Your task to perform on an android device: Go to eBay Image 0: 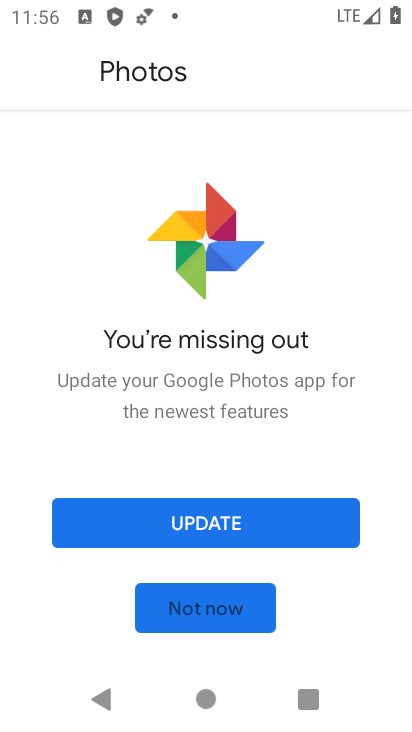
Step 0: press home button
Your task to perform on an android device: Go to eBay Image 1: 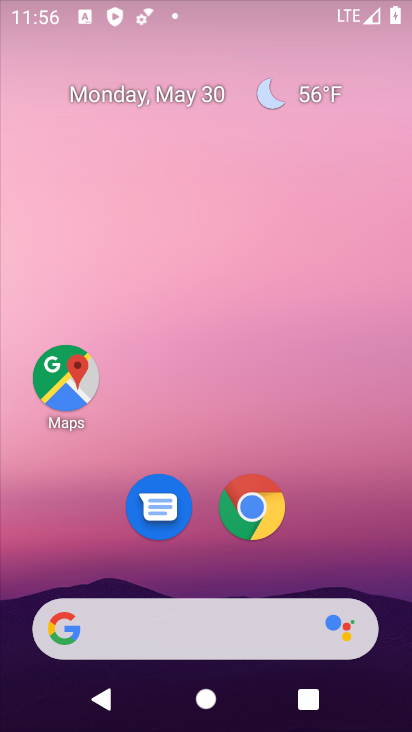
Step 1: drag from (389, 632) to (322, 153)
Your task to perform on an android device: Go to eBay Image 2: 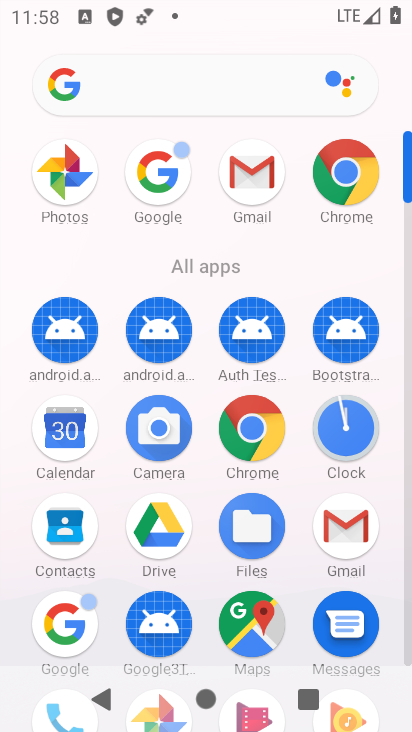
Step 2: click (60, 618)
Your task to perform on an android device: Go to eBay Image 3: 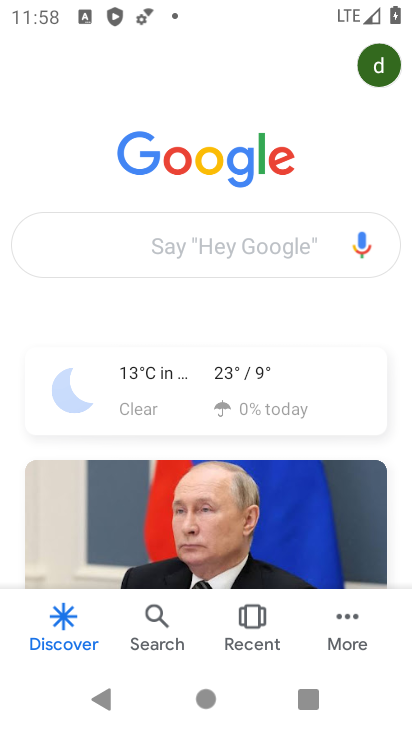
Step 3: click (141, 247)
Your task to perform on an android device: Go to eBay Image 4: 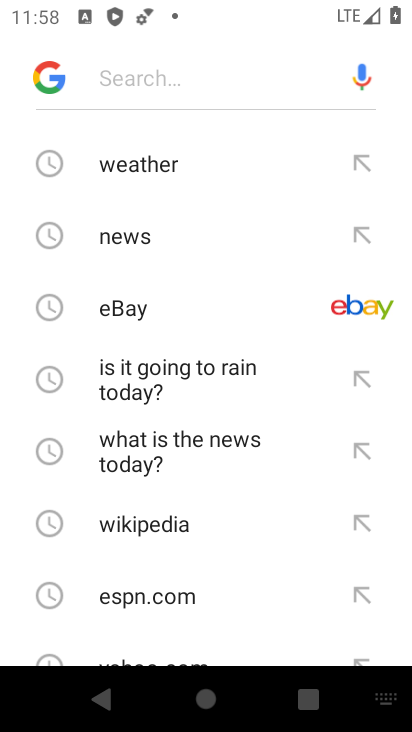
Step 4: click (180, 321)
Your task to perform on an android device: Go to eBay Image 5: 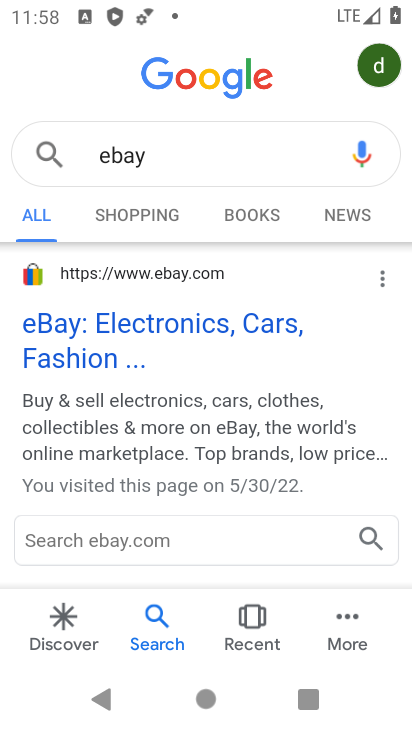
Step 5: task complete